Your task to perform on an android device: turn on javascript in the chrome app Image 0: 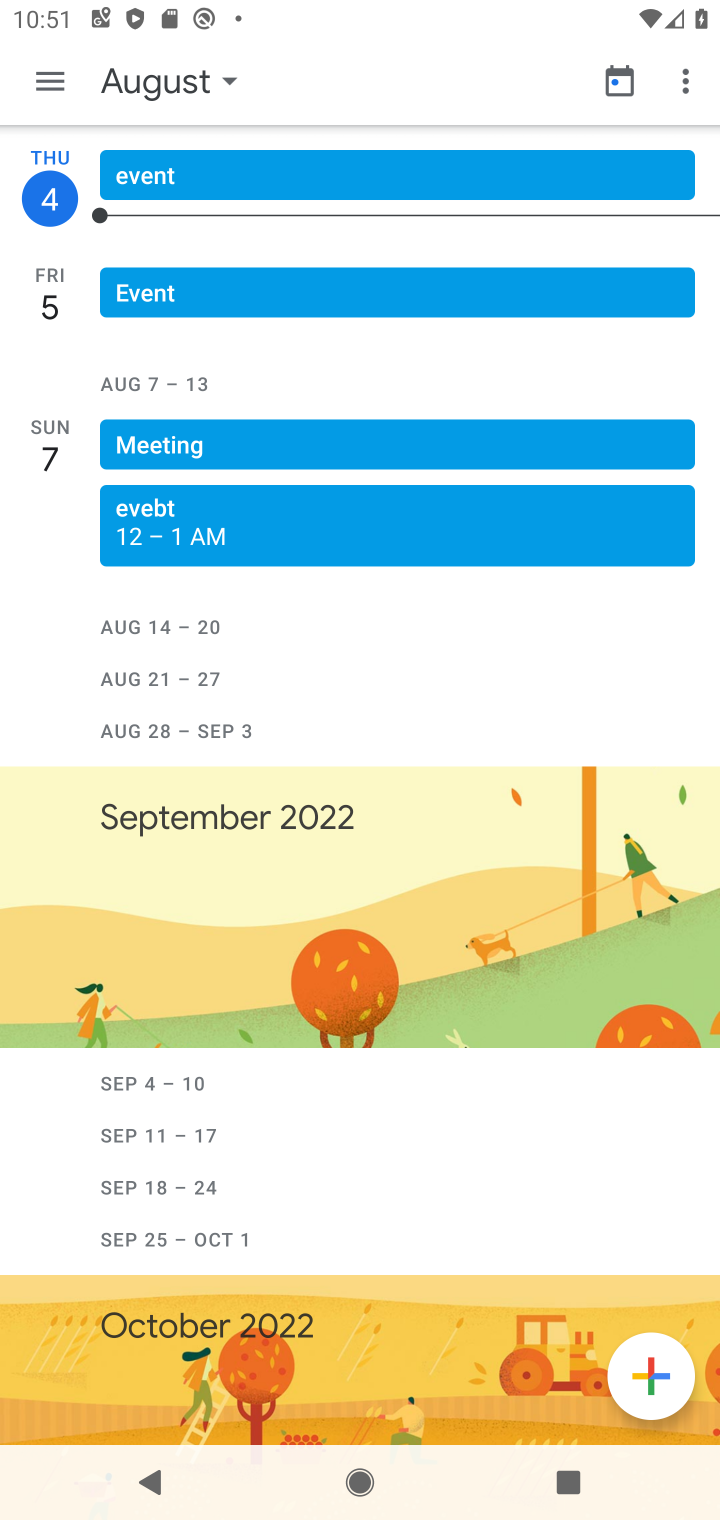
Step 0: press back button
Your task to perform on an android device: turn on javascript in the chrome app Image 1: 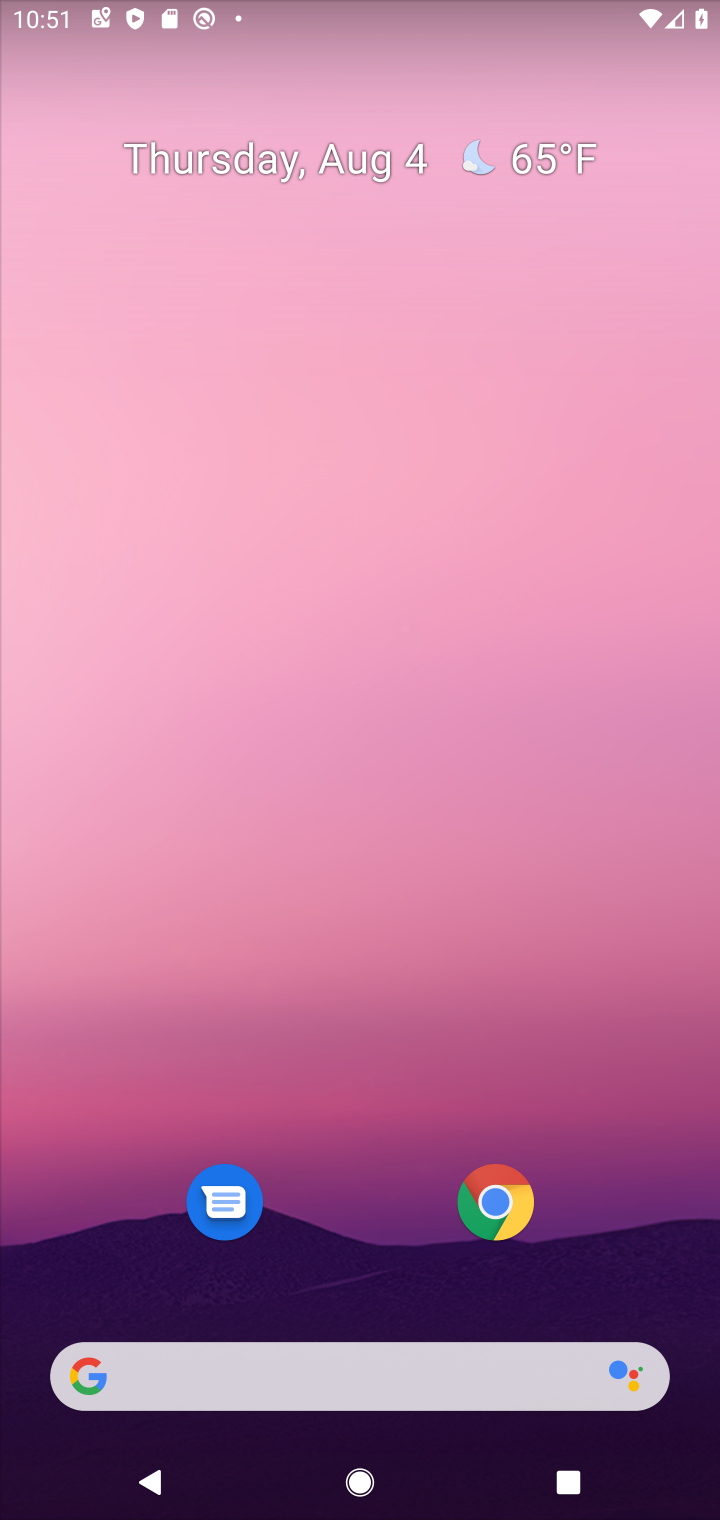
Step 1: click (507, 1222)
Your task to perform on an android device: turn on javascript in the chrome app Image 2: 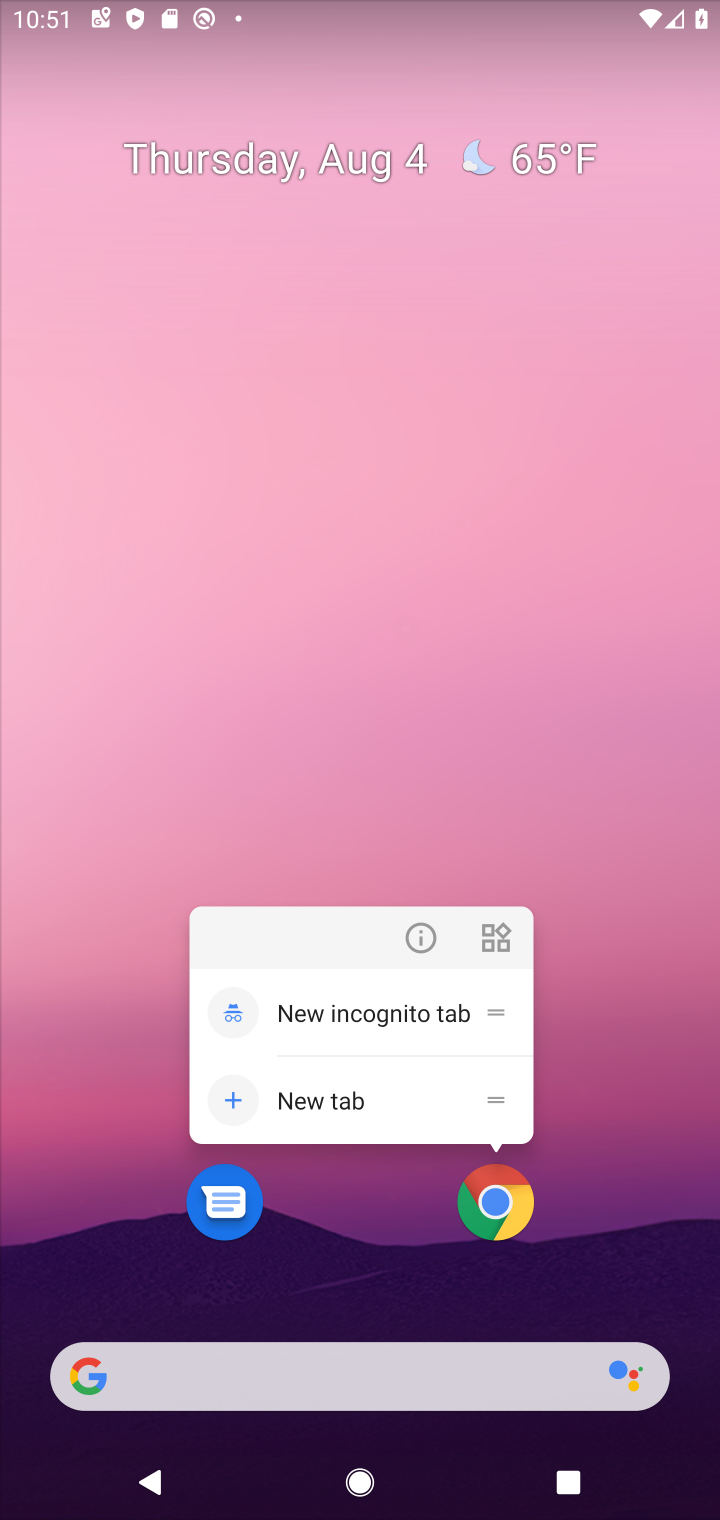
Step 2: click (484, 1205)
Your task to perform on an android device: turn on javascript in the chrome app Image 3: 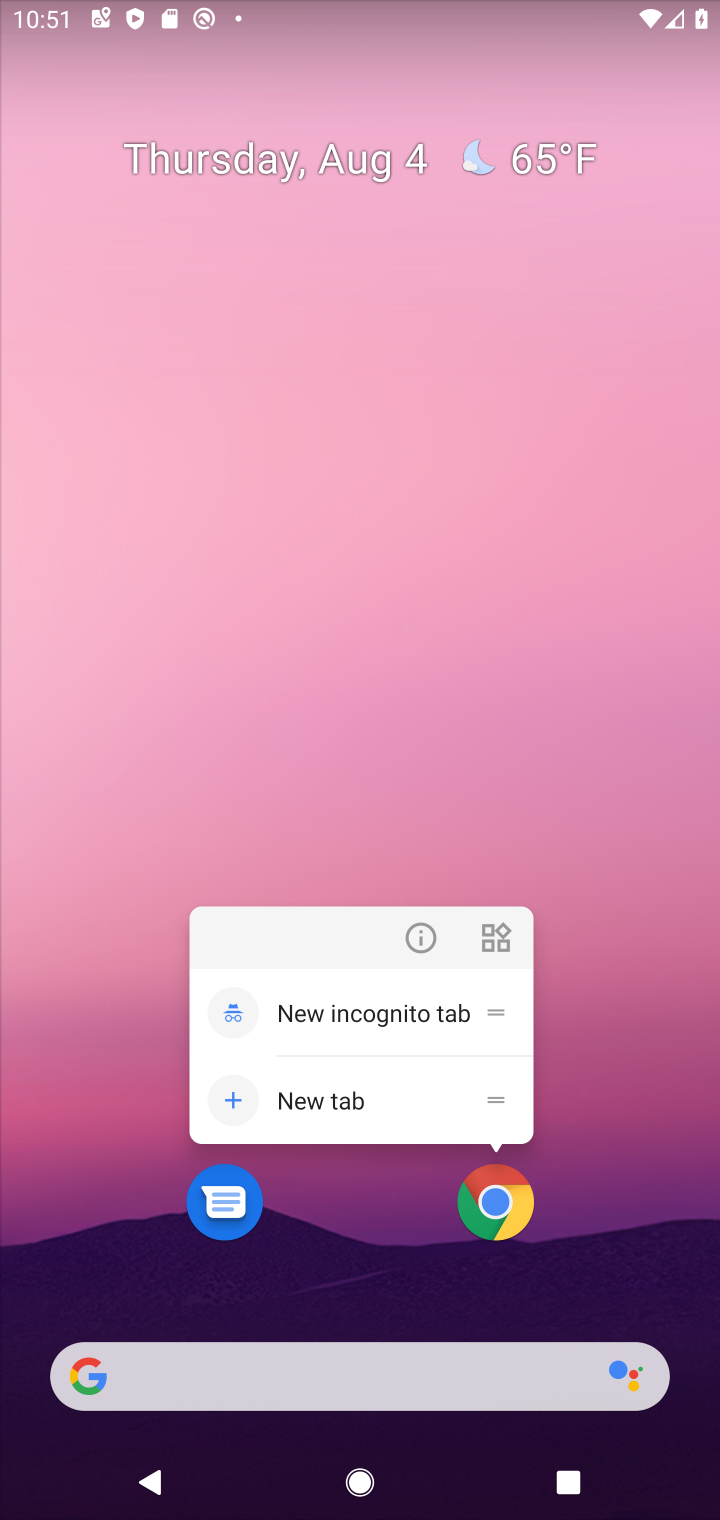
Step 3: click (497, 1205)
Your task to perform on an android device: turn on javascript in the chrome app Image 4: 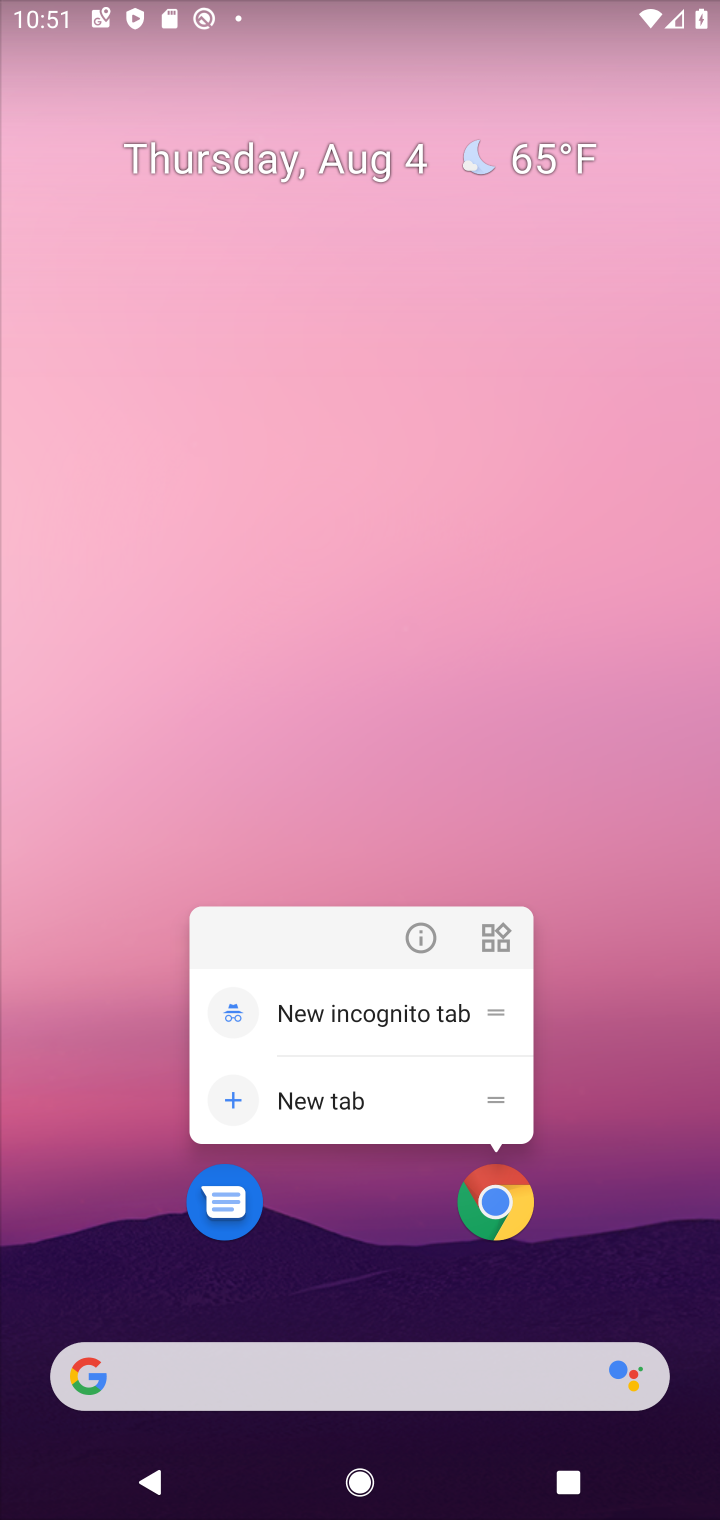
Step 4: click (505, 1208)
Your task to perform on an android device: turn on javascript in the chrome app Image 5: 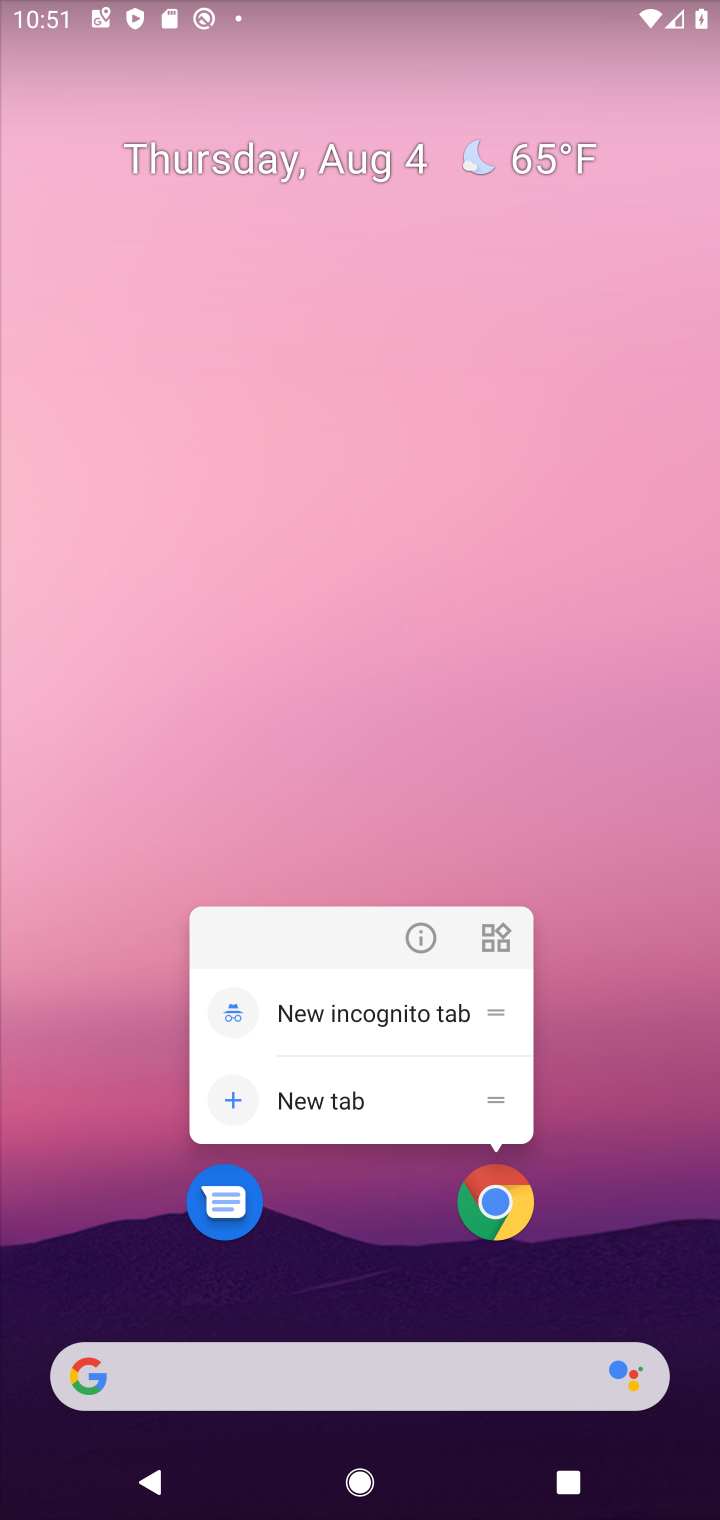
Step 5: click (512, 1192)
Your task to perform on an android device: turn on javascript in the chrome app Image 6: 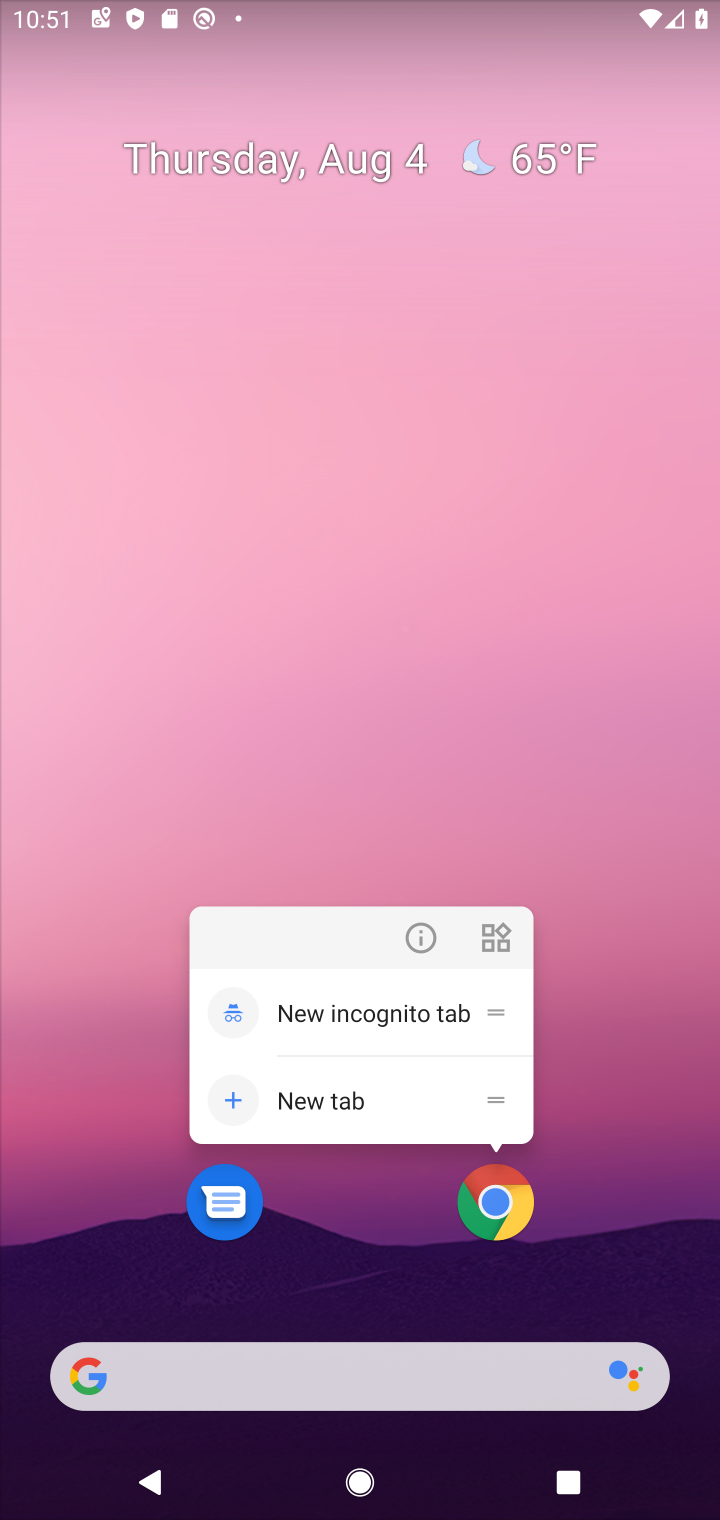
Step 6: click (513, 1190)
Your task to perform on an android device: turn on javascript in the chrome app Image 7: 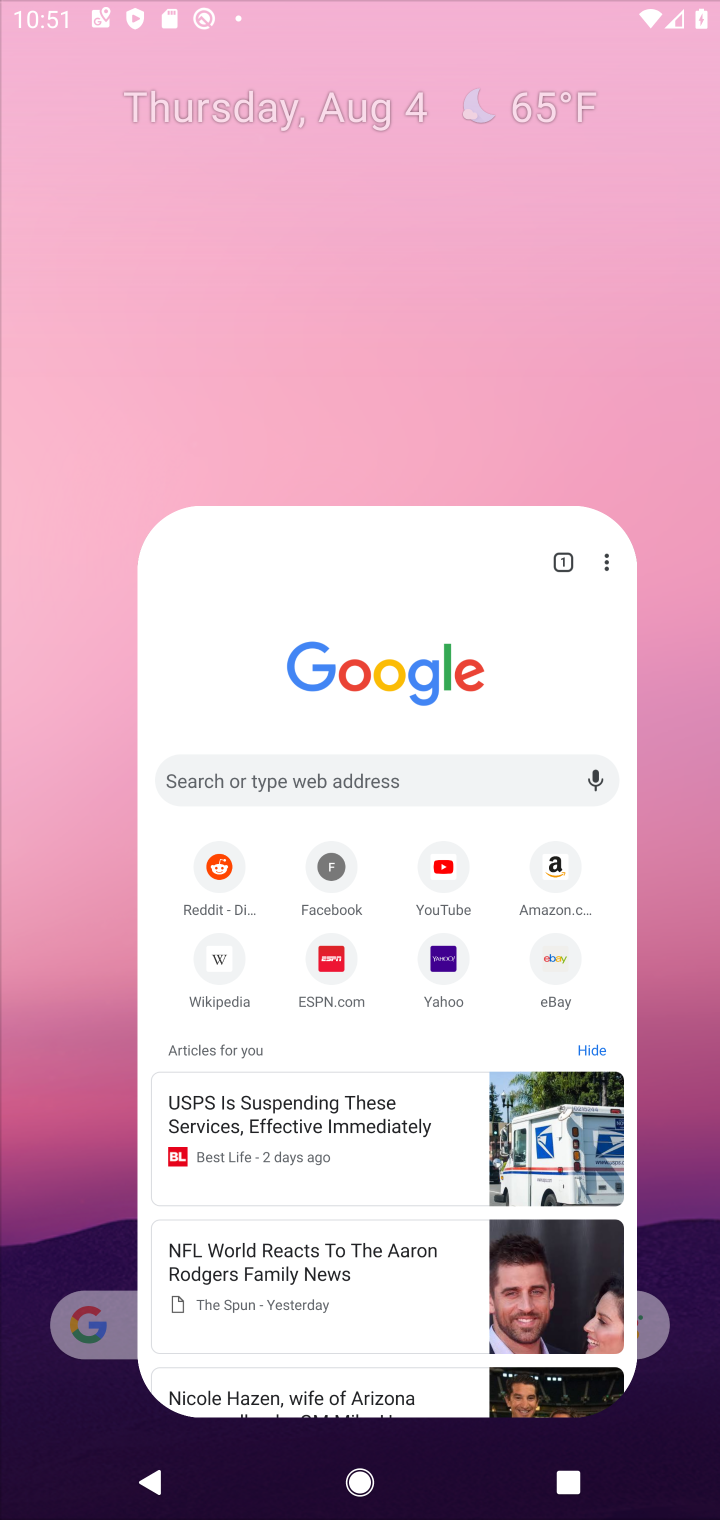
Step 7: click (516, 1201)
Your task to perform on an android device: turn on javascript in the chrome app Image 8: 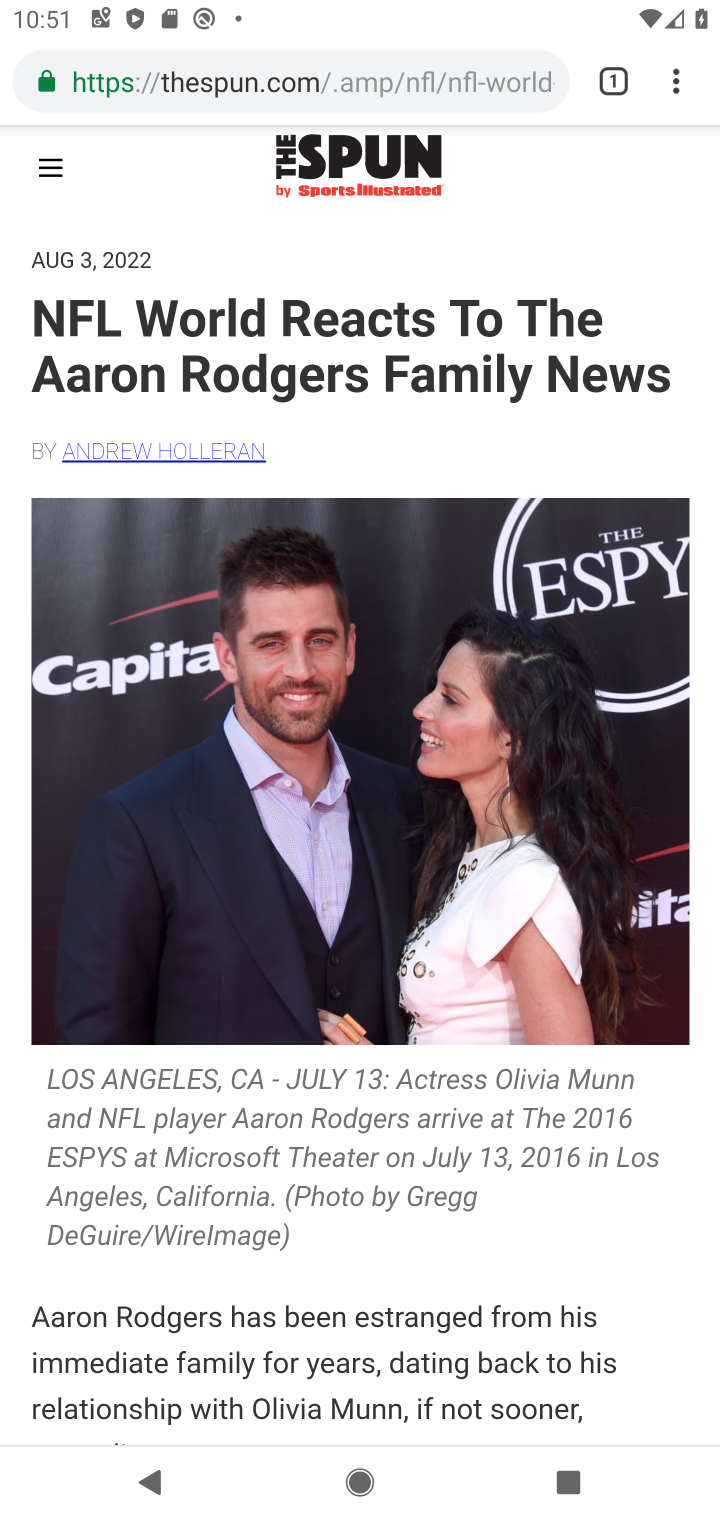
Step 8: drag from (677, 85) to (425, 989)
Your task to perform on an android device: turn on javascript in the chrome app Image 9: 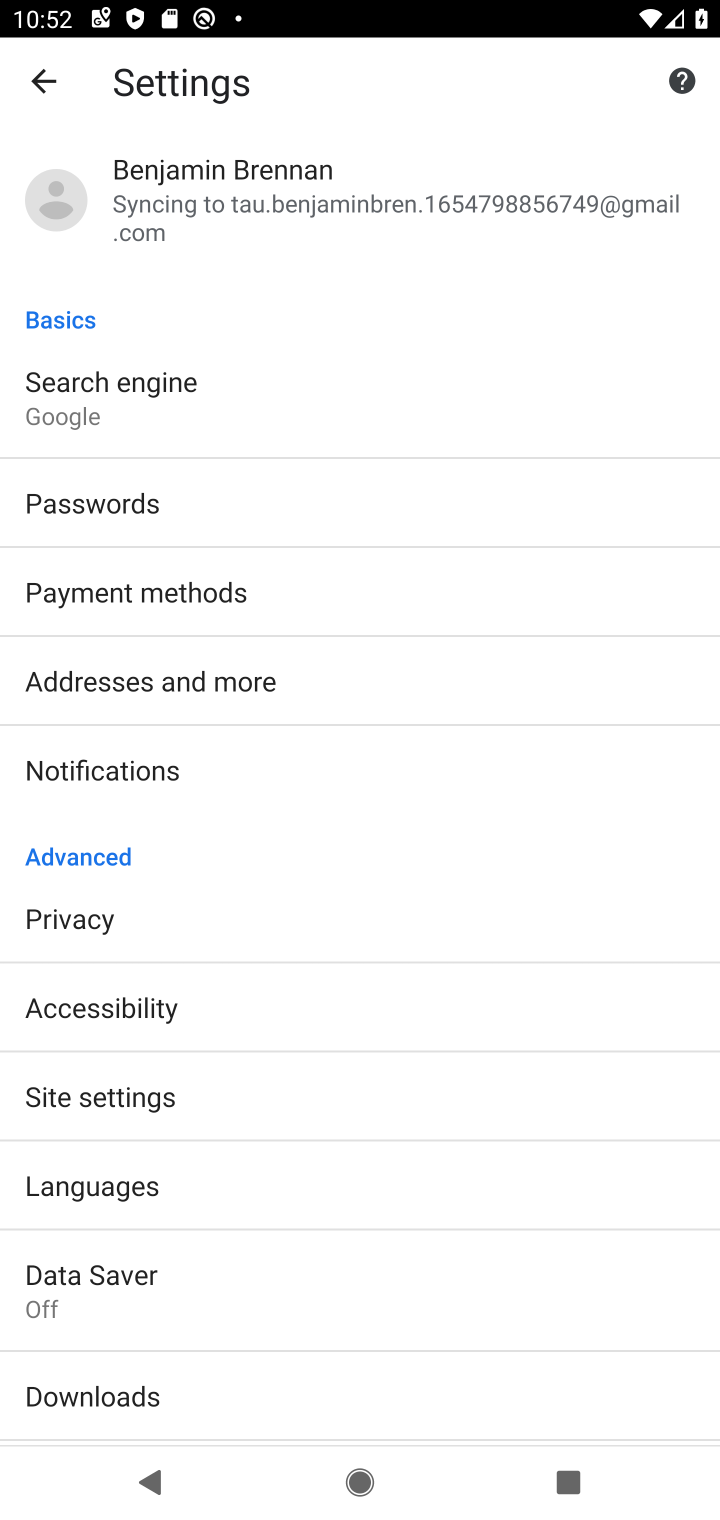
Step 9: click (150, 1098)
Your task to perform on an android device: turn on javascript in the chrome app Image 10: 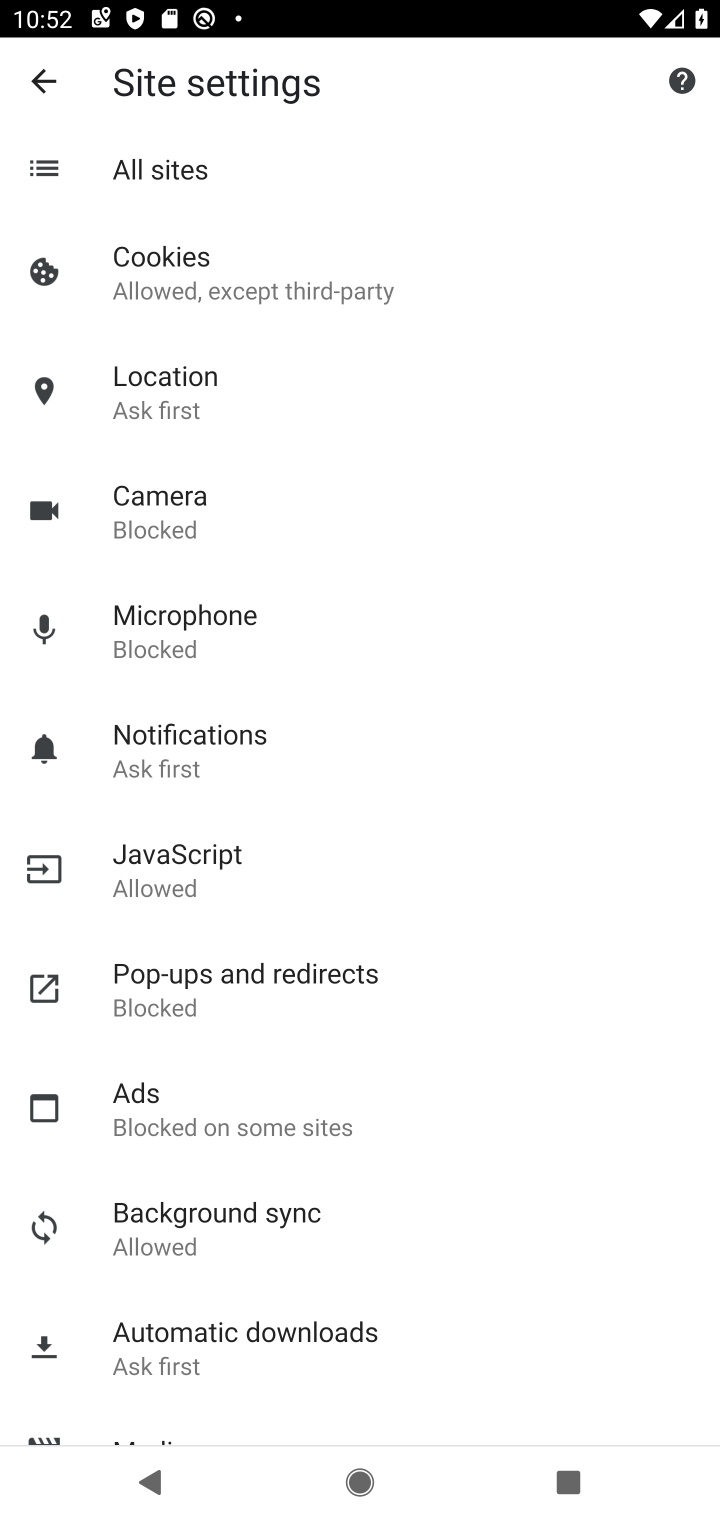
Step 10: click (178, 836)
Your task to perform on an android device: turn on javascript in the chrome app Image 11: 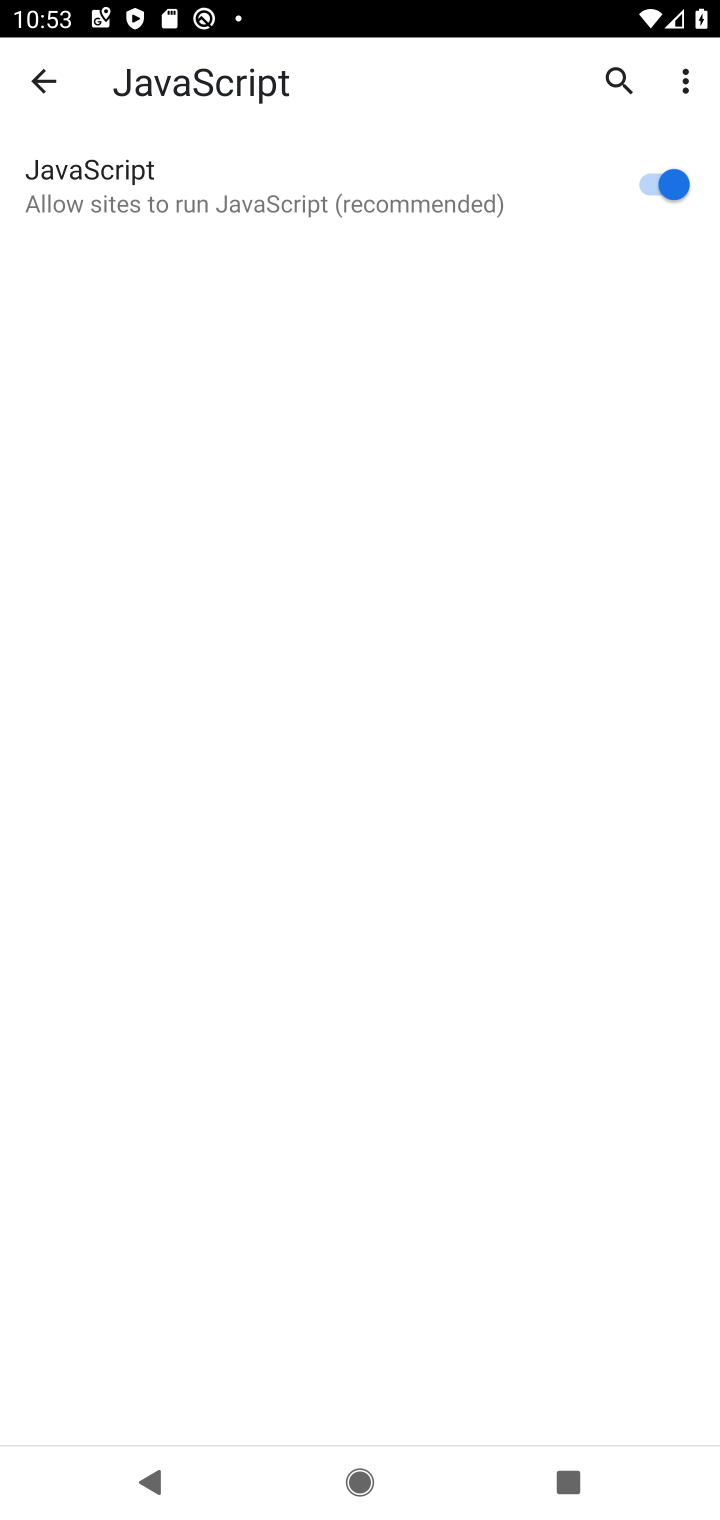
Step 11: task complete